Your task to perform on an android device: visit the assistant section in the google photos Image 0: 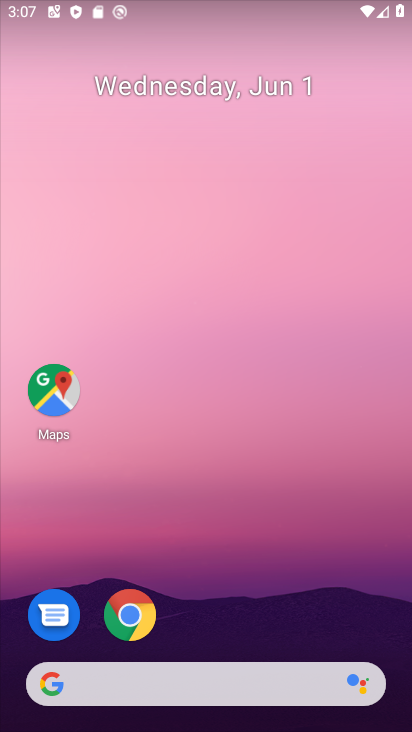
Step 0: press home button
Your task to perform on an android device: visit the assistant section in the google photos Image 1: 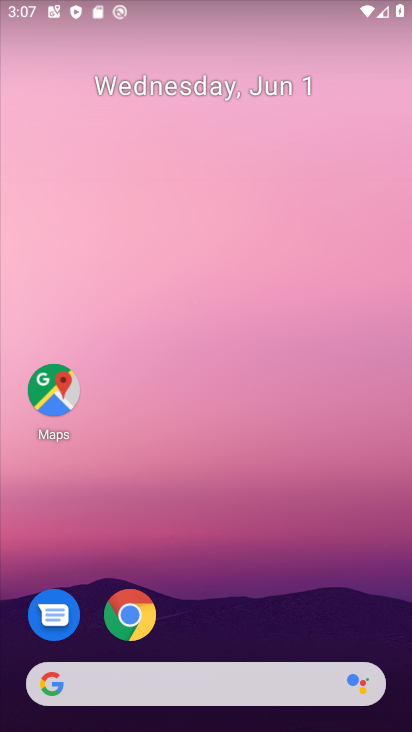
Step 1: drag from (217, 268) to (219, 35)
Your task to perform on an android device: visit the assistant section in the google photos Image 2: 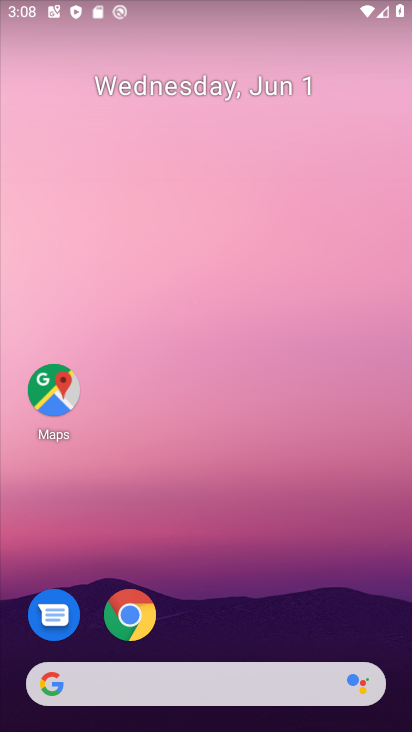
Step 2: drag from (232, 640) to (261, 99)
Your task to perform on an android device: visit the assistant section in the google photos Image 3: 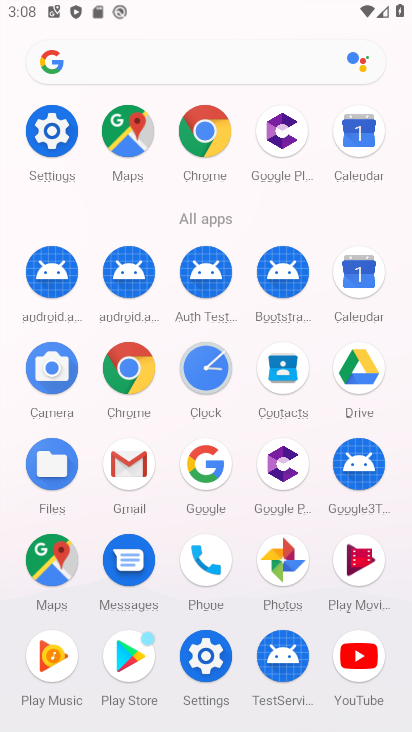
Step 3: click (282, 550)
Your task to perform on an android device: visit the assistant section in the google photos Image 4: 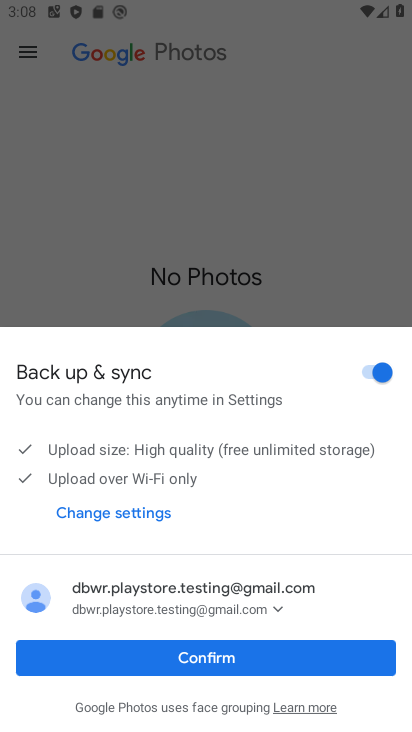
Step 4: click (205, 654)
Your task to perform on an android device: visit the assistant section in the google photos Image 5: 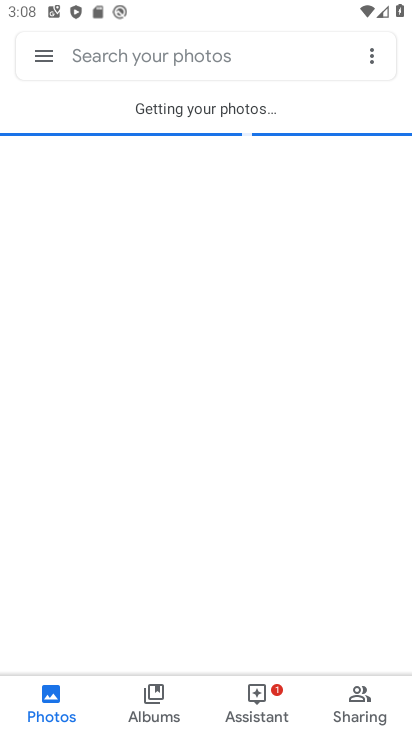
Step 5: click (258, 691)
Your task to perform on an android device: visit the assistant section in the google photos Image 6: 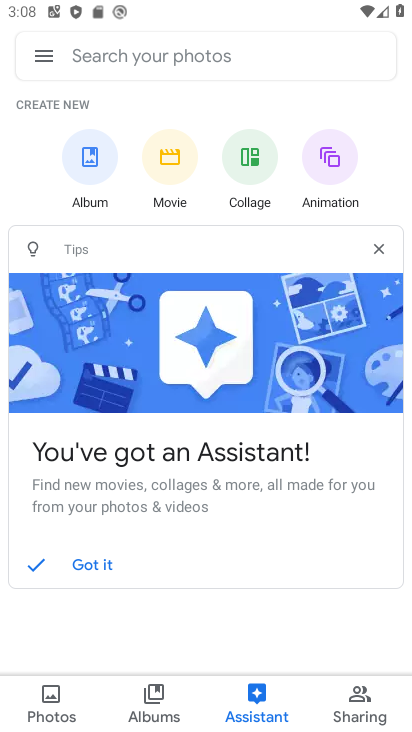
Step 6: task complete